Your task to perform on an android device: turn off location history Image 0: 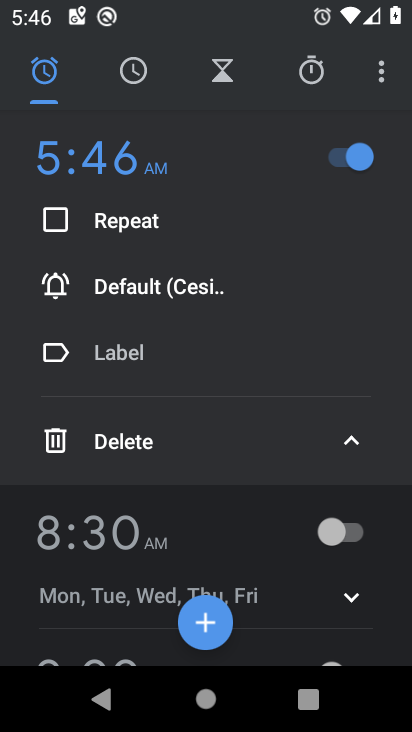
Step 0: press home button
Your task to perform on an android device: turn off location history Image 1: 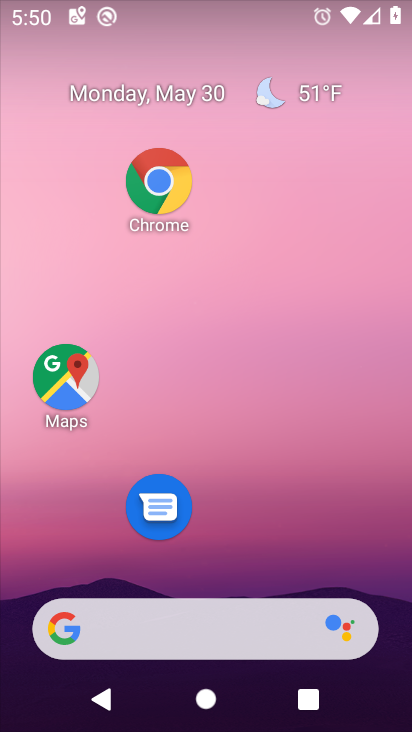
Step 1: drag from (238, 343) to (158, 0)
Your task to perform on an android device: turn off location history Image 2: 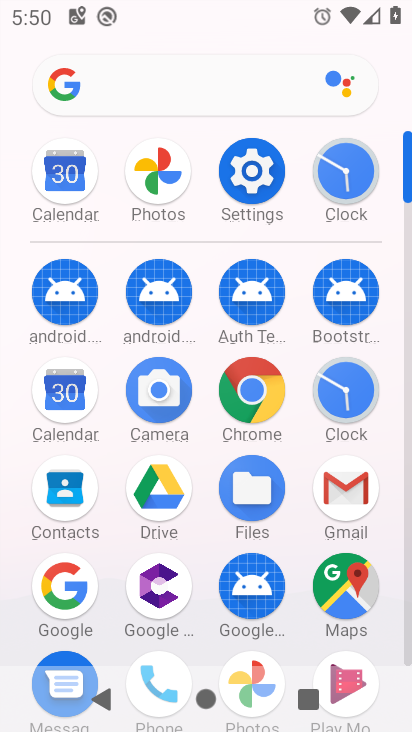
Step 2: click (356, 603)
Your task to perform on an android device: turn off location history Image 3: 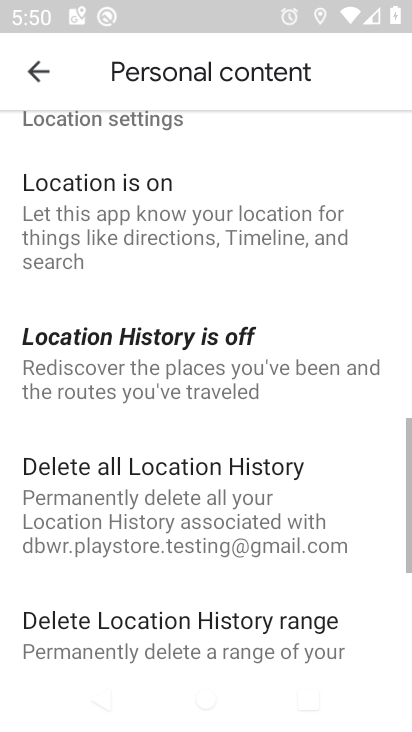
Step 3: click (168, 398)
Your task to perform on an android device: turn off location history Image 4: 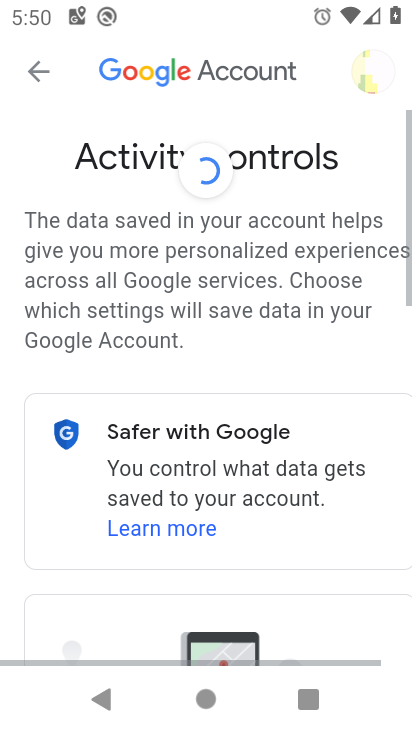
Step 4: drag from (242, 628) to (108, 110)
Your task to perform on an android device: turn off location history Image 5: 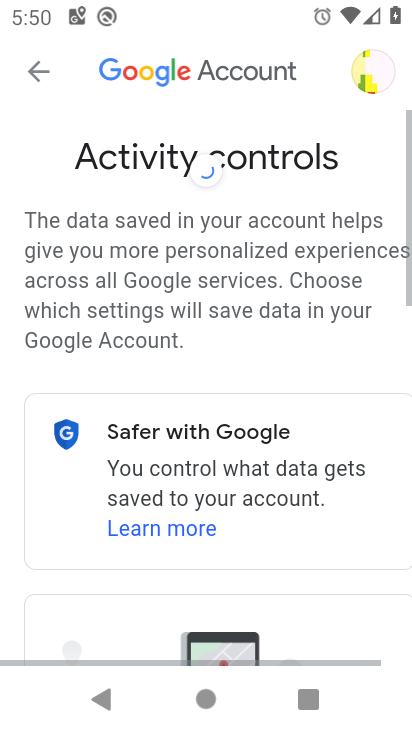
Step 5: click (240, 615)
Your task to perform on an android device: turn off location history Image 6: 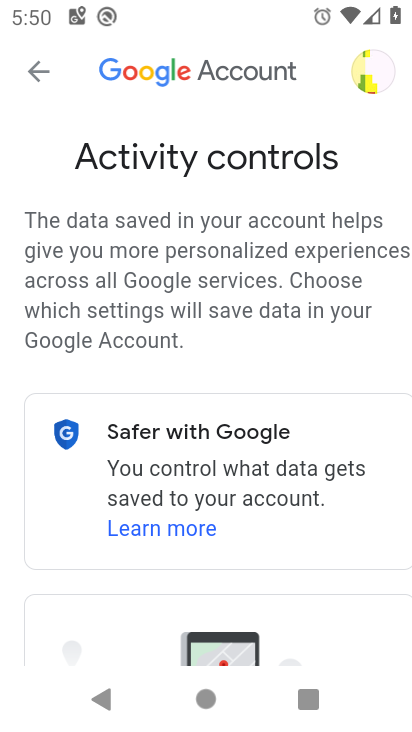
Step 6: drag from (240, 615) to (70, 15)
Your task to perform on an android device: turn off location history Image 7: 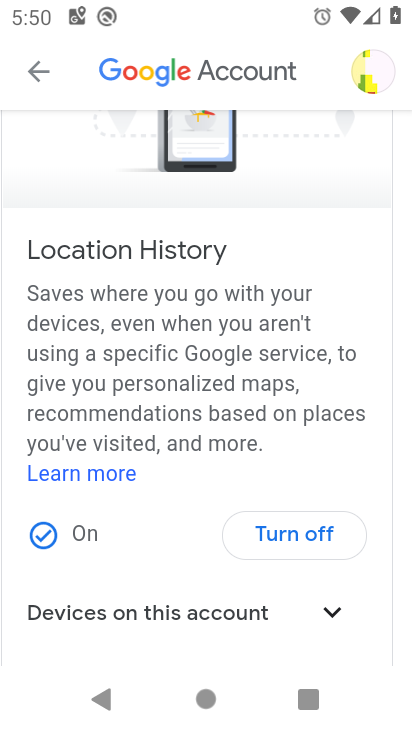
Step 7: click (312, 541)
Your task to perform on an android device: turn off location history Image 8: 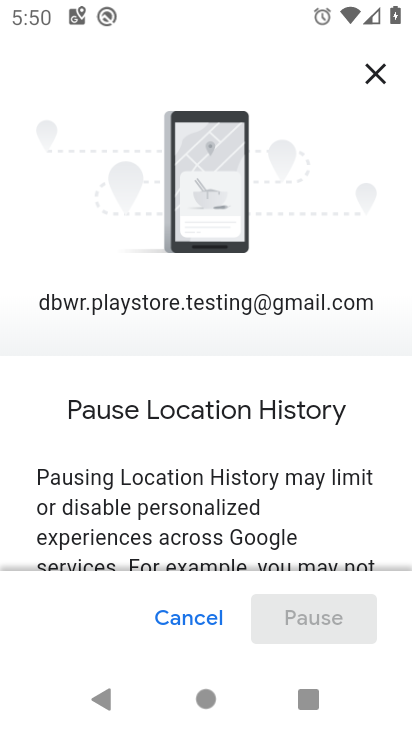
Step 8: drag from (302, 513) to (204, 161)
Your task to perform on an android device: turn off location history Image 9: 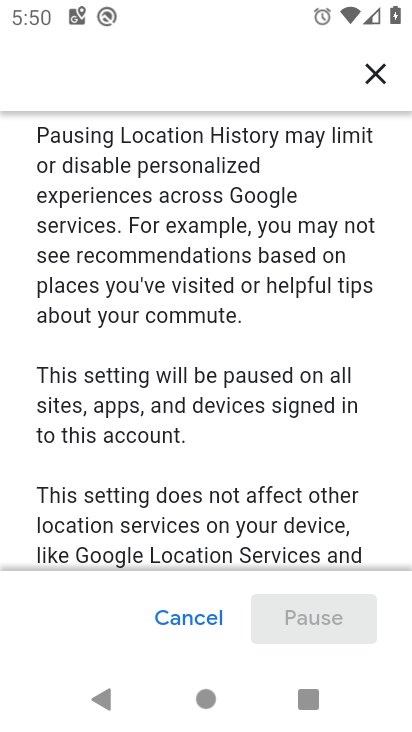
Step 9: drag from (294, 490) to (208, 27)
Your task to perform on an android device: turn off location history Image 10: 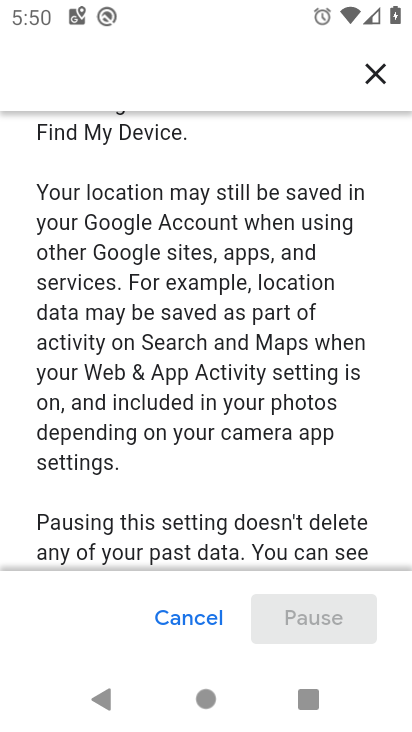
Step 10: drag from (314, 428) to (227, 84)
Your task to perform on an android device: turn off location history Image 11: 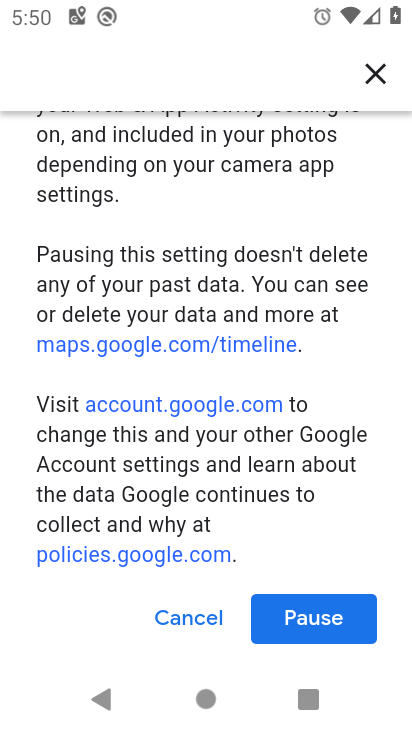
Step 11: drag from (305, 556) to (262, 371)
Your task to perform on an android device: turn off location history Image 12: 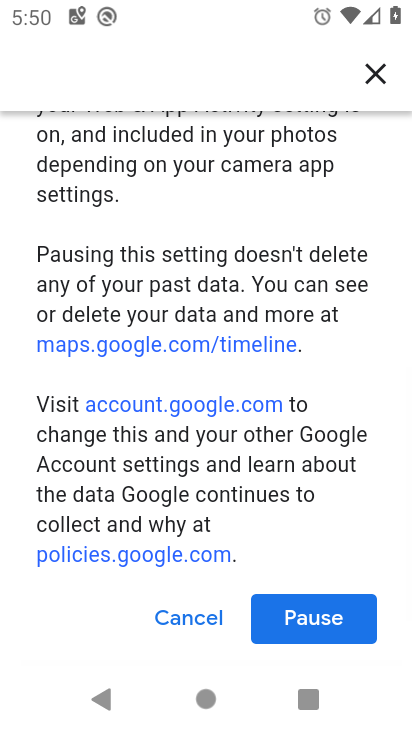
Step 12: click (305, 622)
Your task to perform on an android device: turn off location history Image 13: 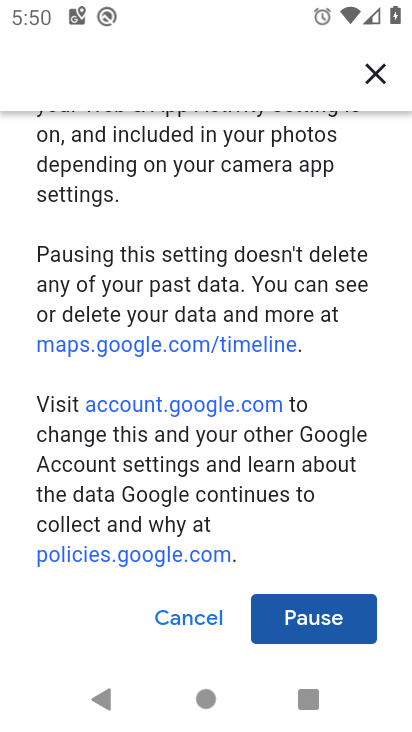
Step 13: click (305, 622)
Your task to perform on an android device: turn off location history Image 14: 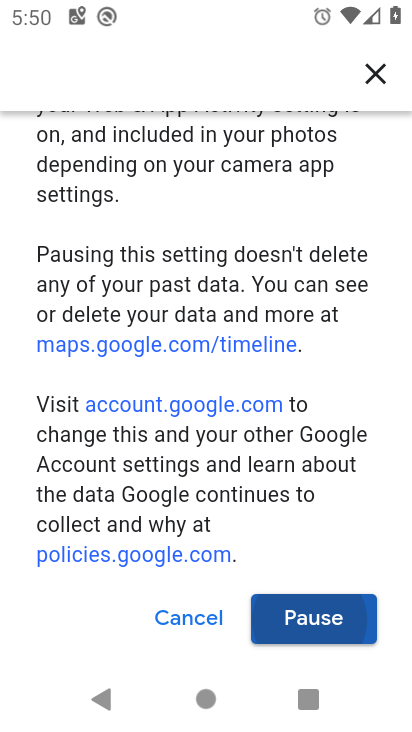
Step 14: click (305, 622)
Your task to perform on an android device: turn off location history Image 15: 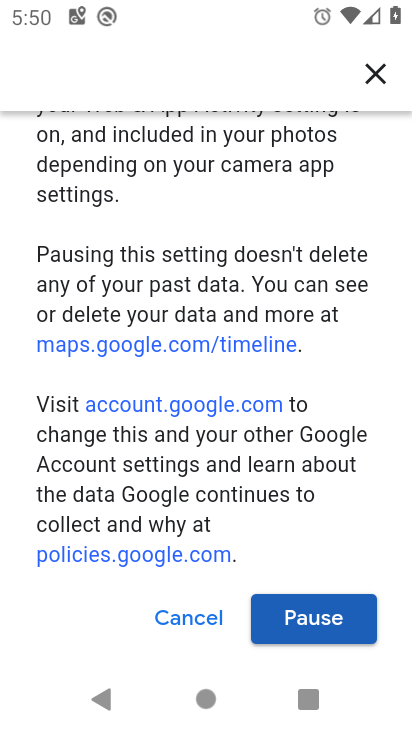
Step 15: click (305, 622)
Your task to perform on an android device: turn off location history Image 16: 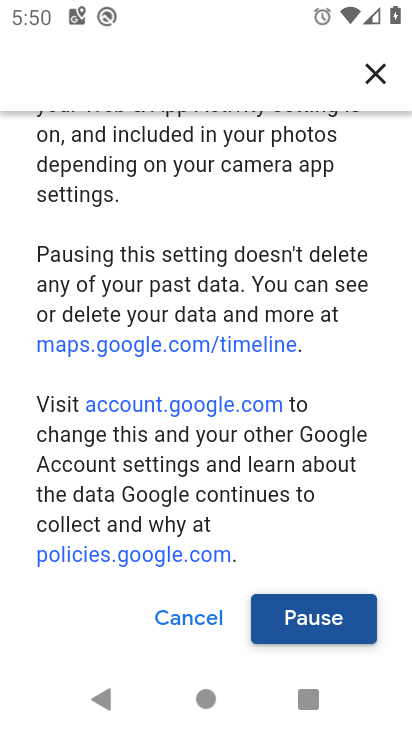
Step 16: click (305, 622)
Your task to perform on an android device: turn off location history Image 17: 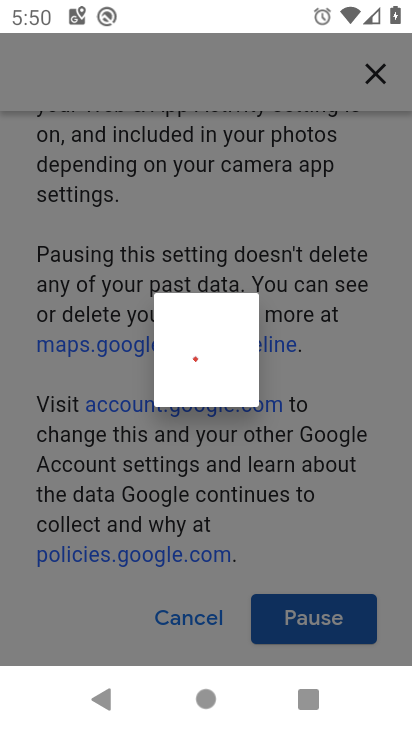
Step 17: click (305, 622)
Your task to perform on an android device: turn off location history Image 18: 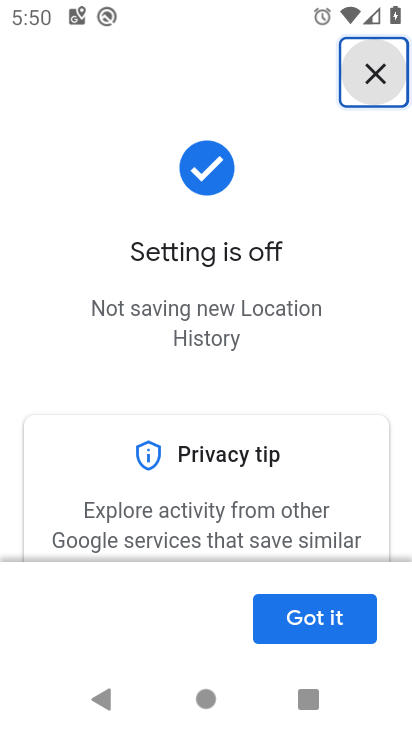
Step 18: click (310, 609)
Your task to perform on an android device: turn off location history Image 19: 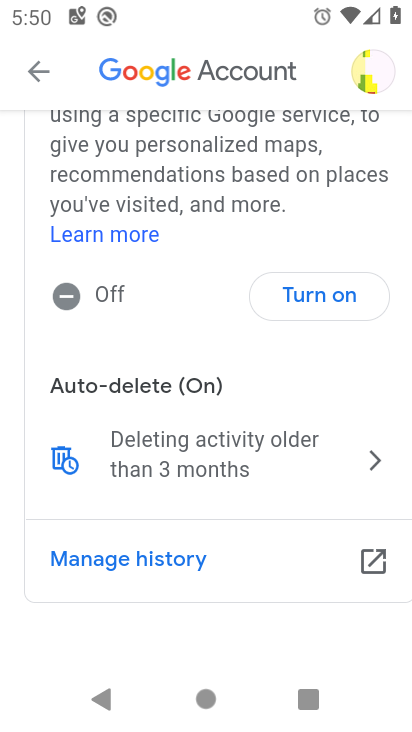
Step 19: task complete